Your task to perform on an android device: Add razer nari to the cart on bestbuy.com, then select checkout. Image 0: 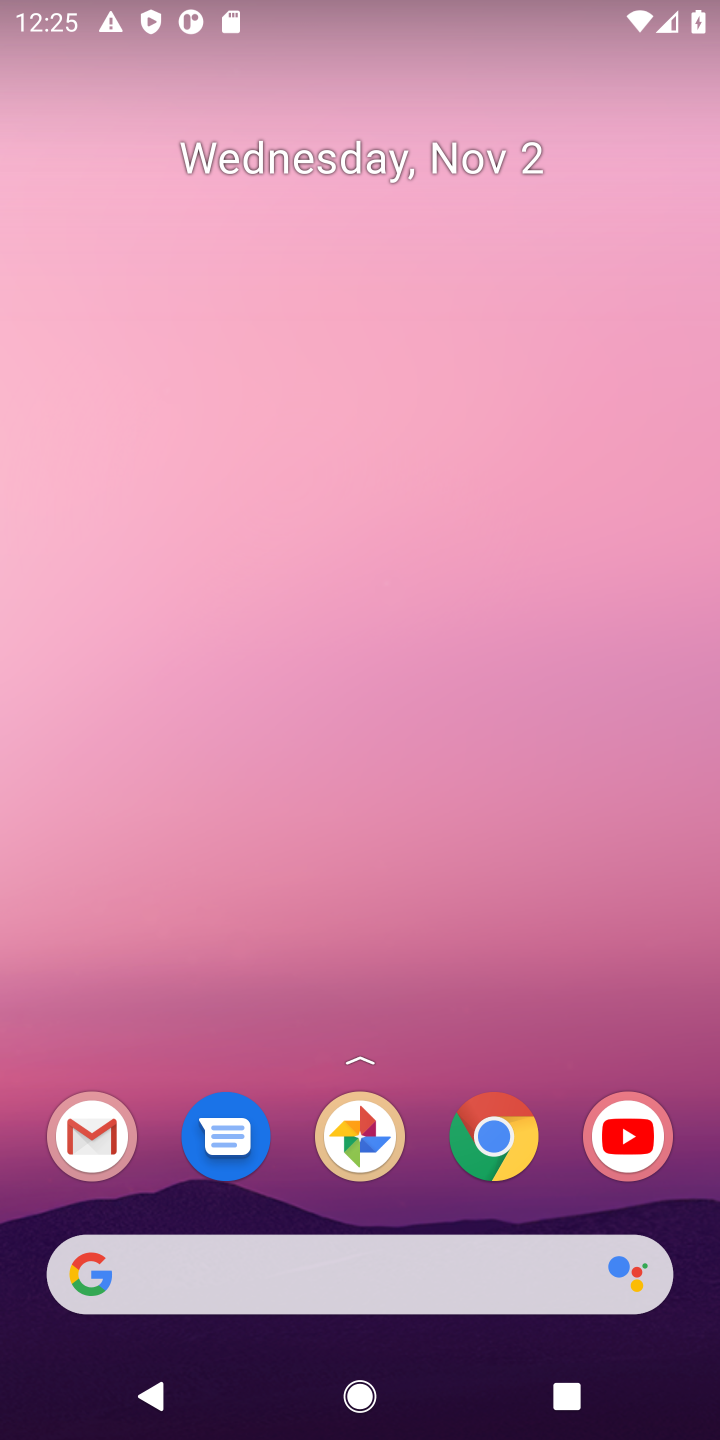
Step 0: click (482, 1145)
Your task to perform on an android device: Add razer nari to the cart on bestbuy.com, then select checkout. Image 1: 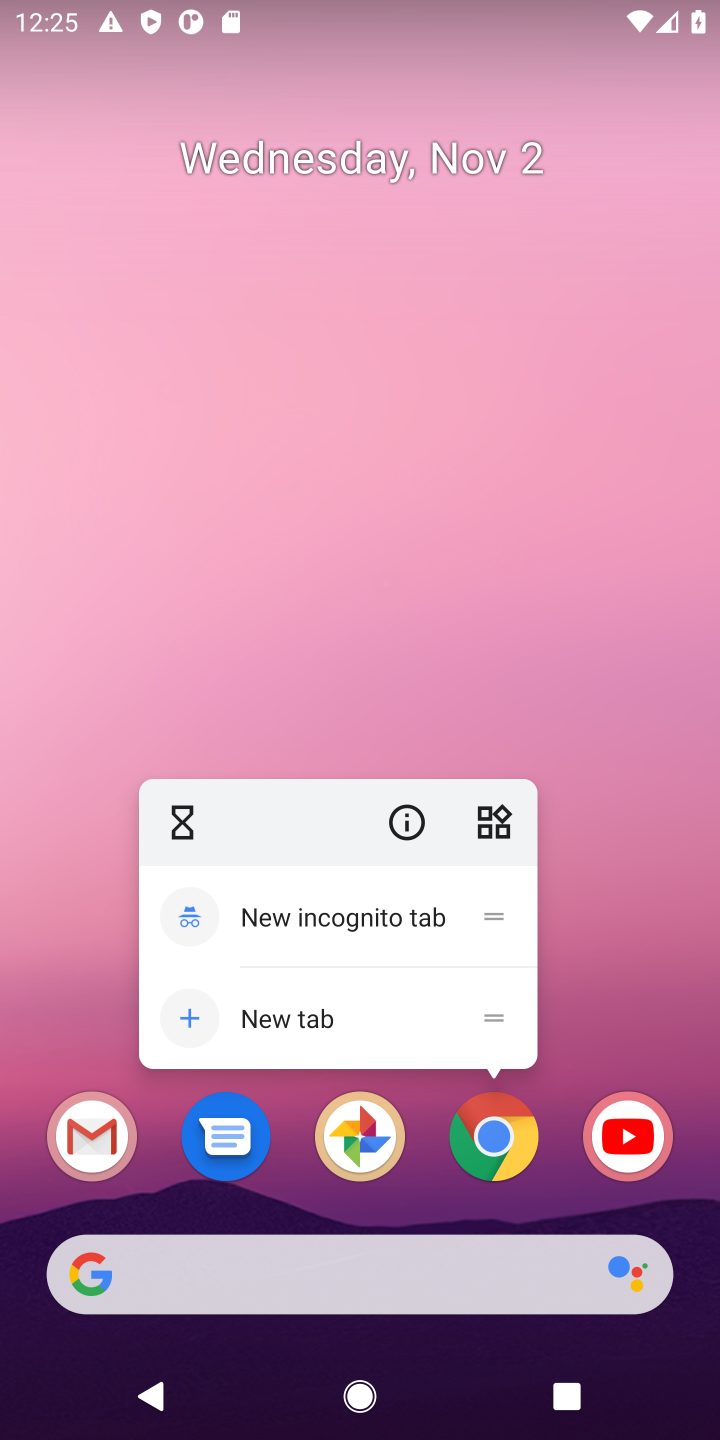
Step 1: click (493, 1146)
Your task to perform on an android device: Add razer nari to the cart on bestbuy.com, then select checkout. Image 2: 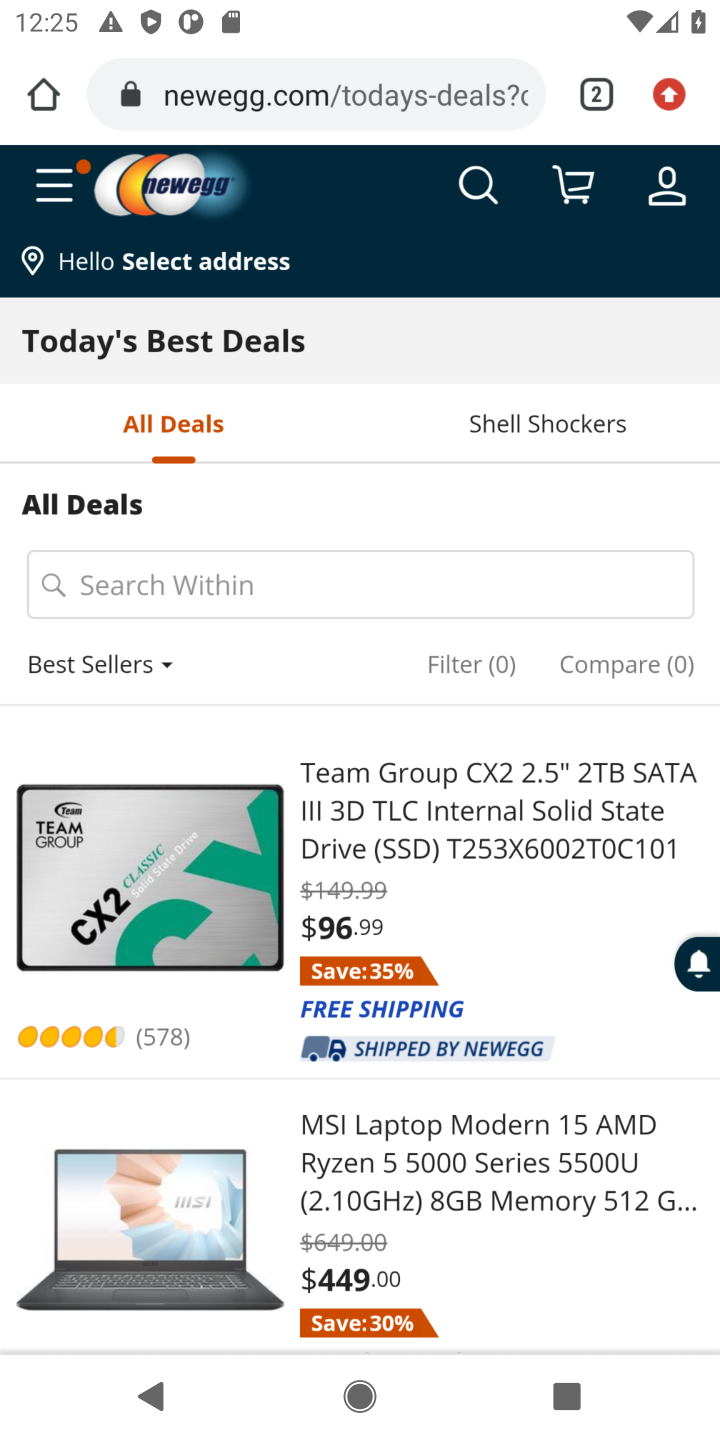
Step 2: click (483, 1174)
Your task to perform on an android device: Add razer nari to the cart on bestbuy.com, then select checkout. Image 3: 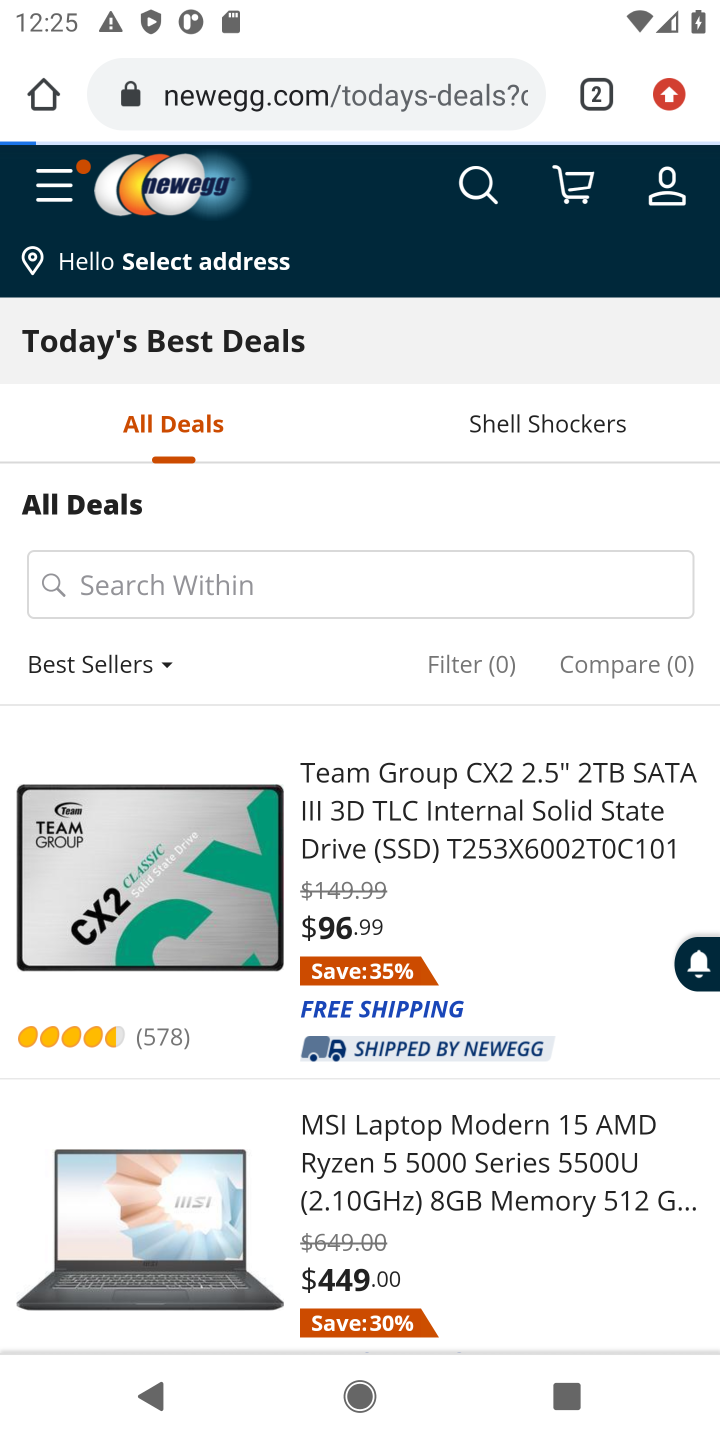
Step 3: click (407, 95)
Your task to perform on an android device: Add razer nari to the cart on bestbuy.com, then select checkout. Image 4: 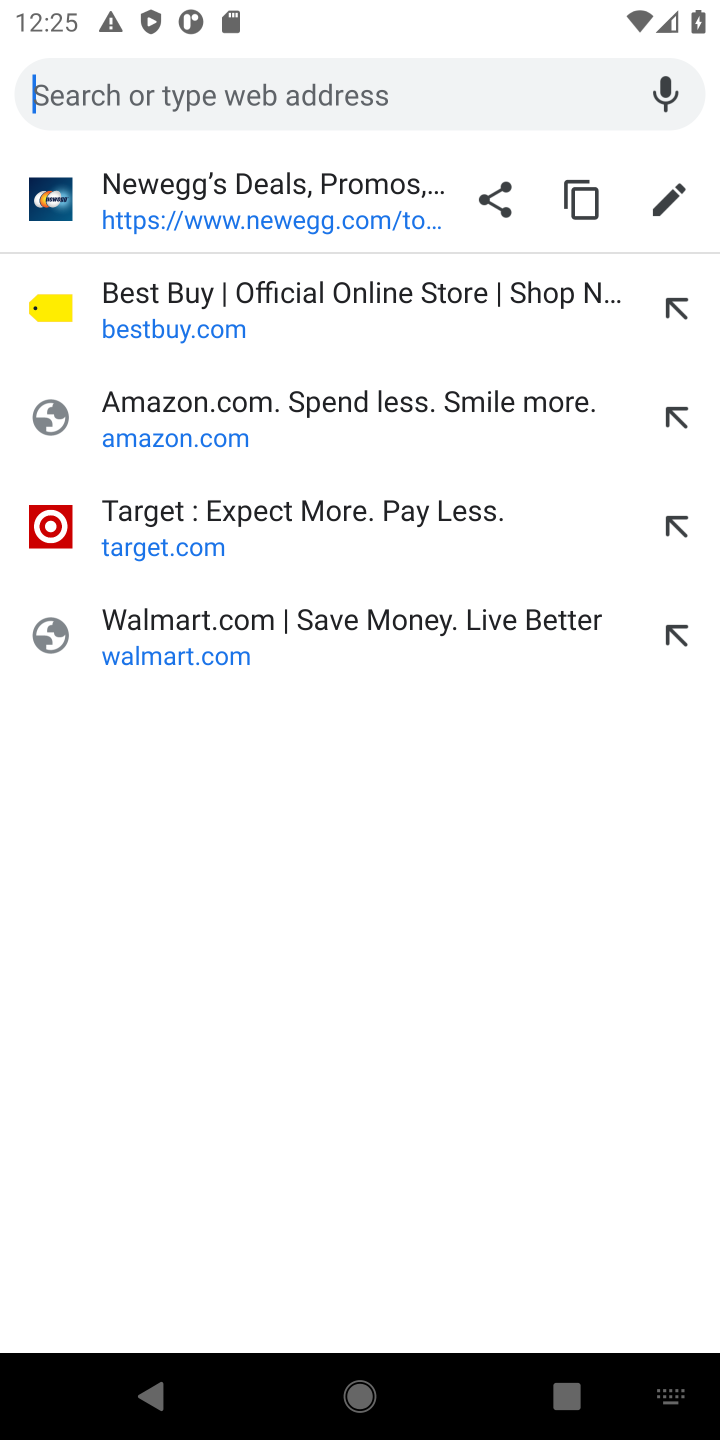
Step 4: type "bestbuy.com"
Your task to perform on an android device: Add razer nari to the cart on bestbuy.com, then select checkout. Image 5: 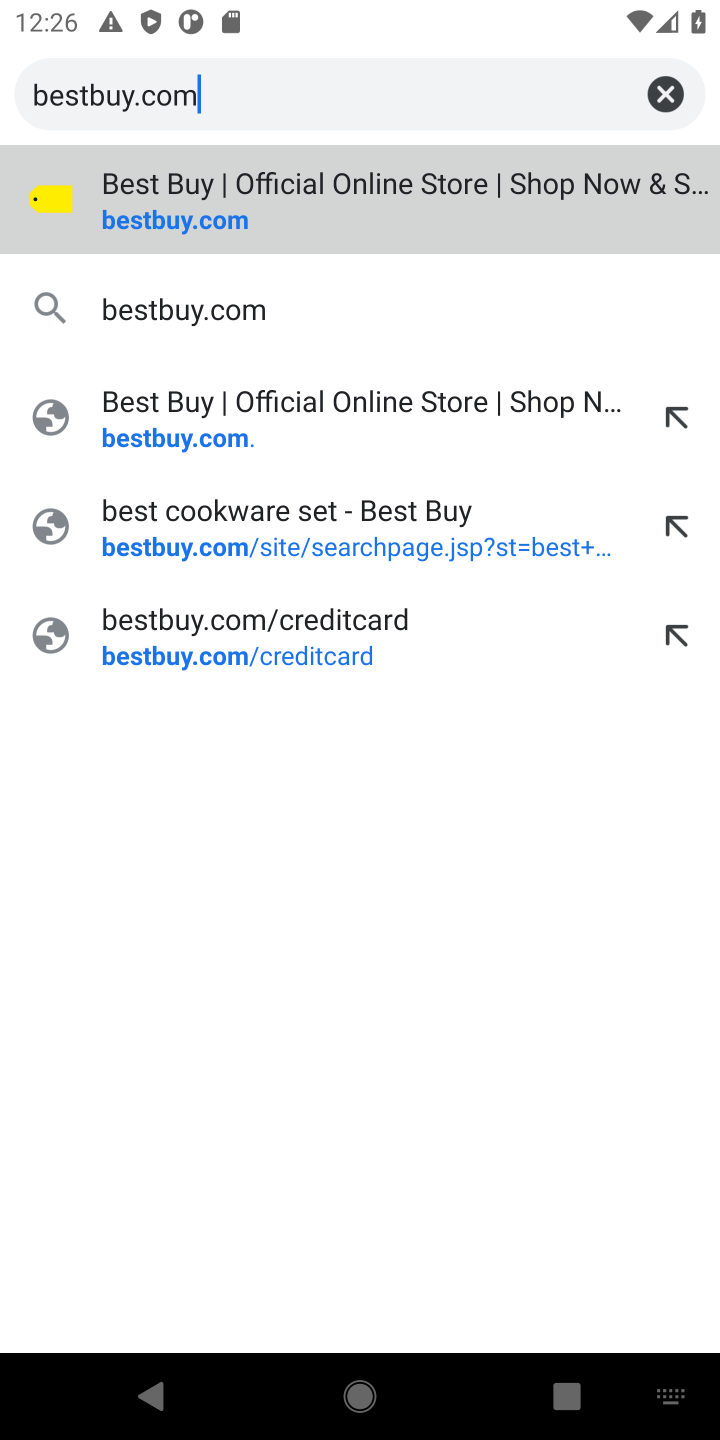
Step 5: click (468, 191)
Your task to perform on an android device: Add razer nari to the cart on bestbuy.com, then select checkout. Image 6: 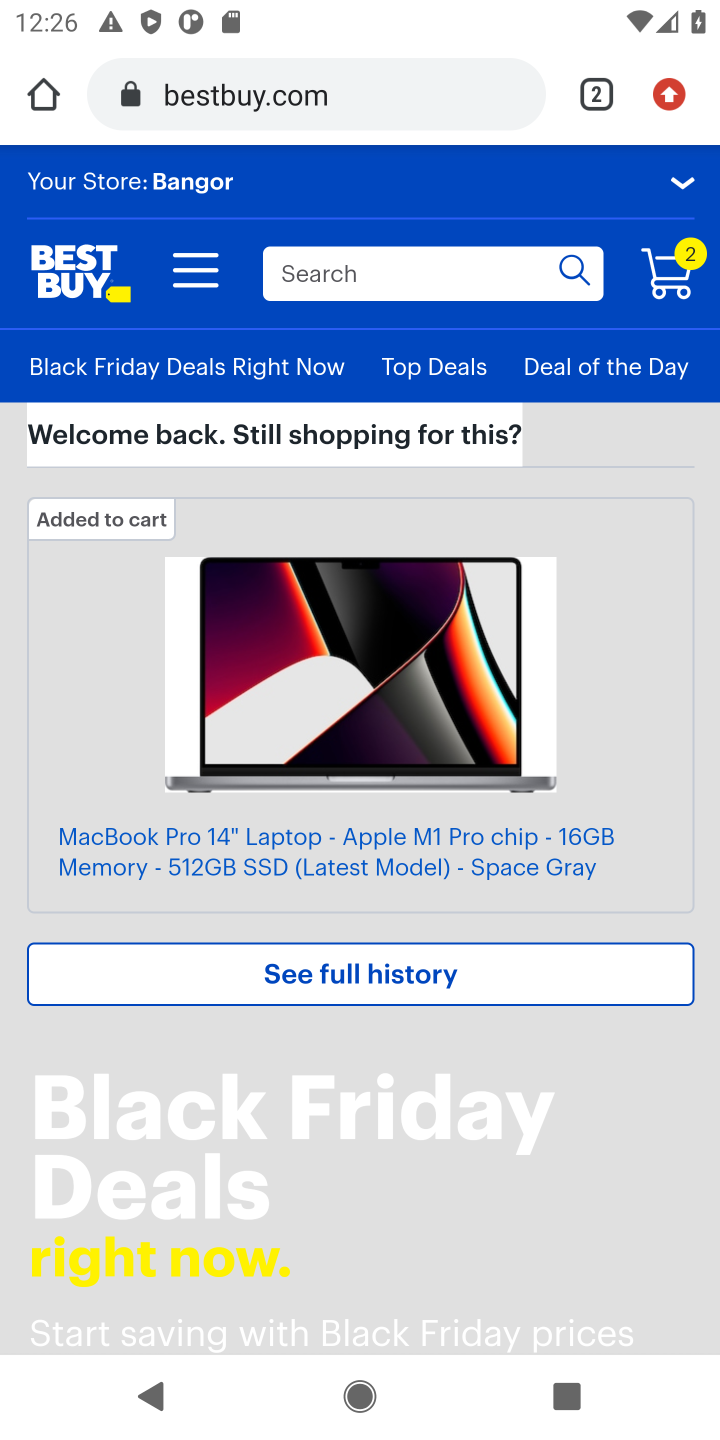
Step 6: click (390, 284)
Your task to perform on an android device: Add razer nari to the cart on bestbuy.com, then select checkout. Image 7: 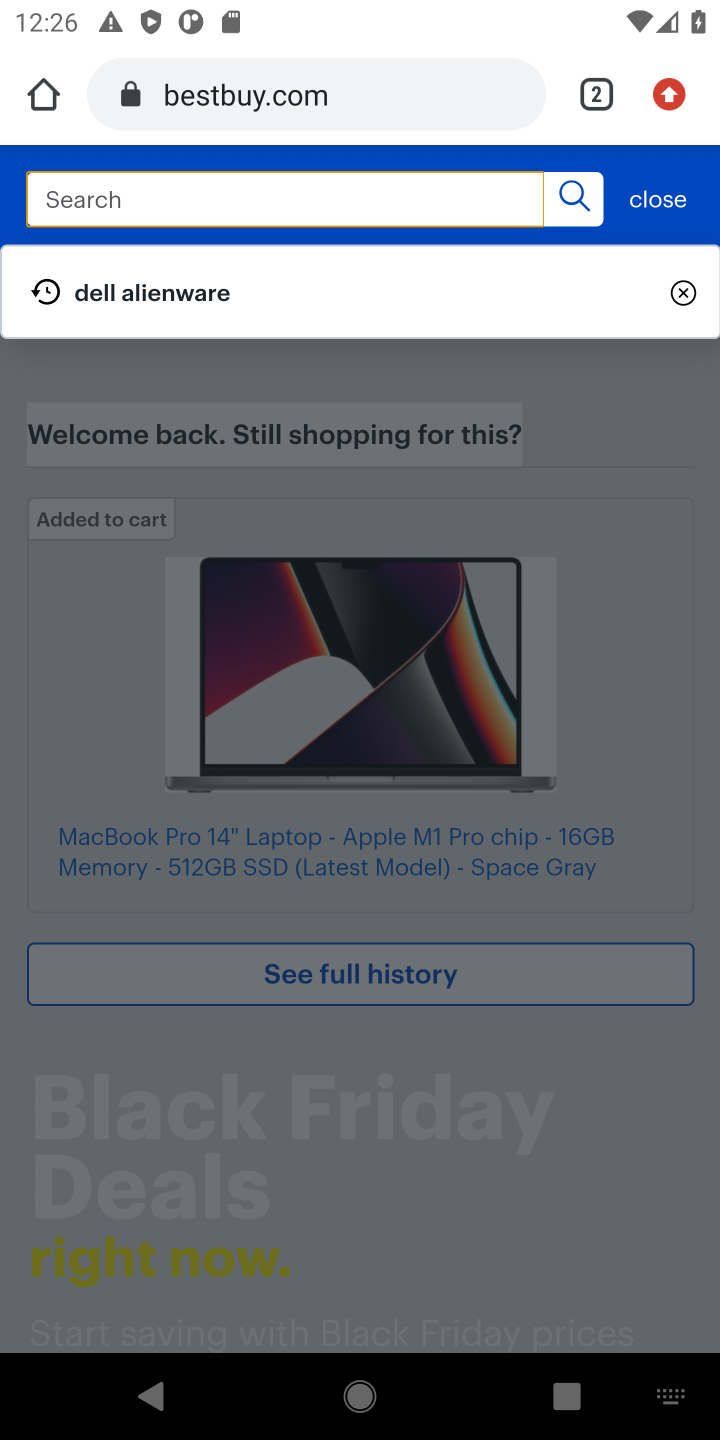
Step 7: type "razer nari"
Your task to perform on an android device: Add razer nari to the cart on bestbuy.com, then select checkout. Image 8: 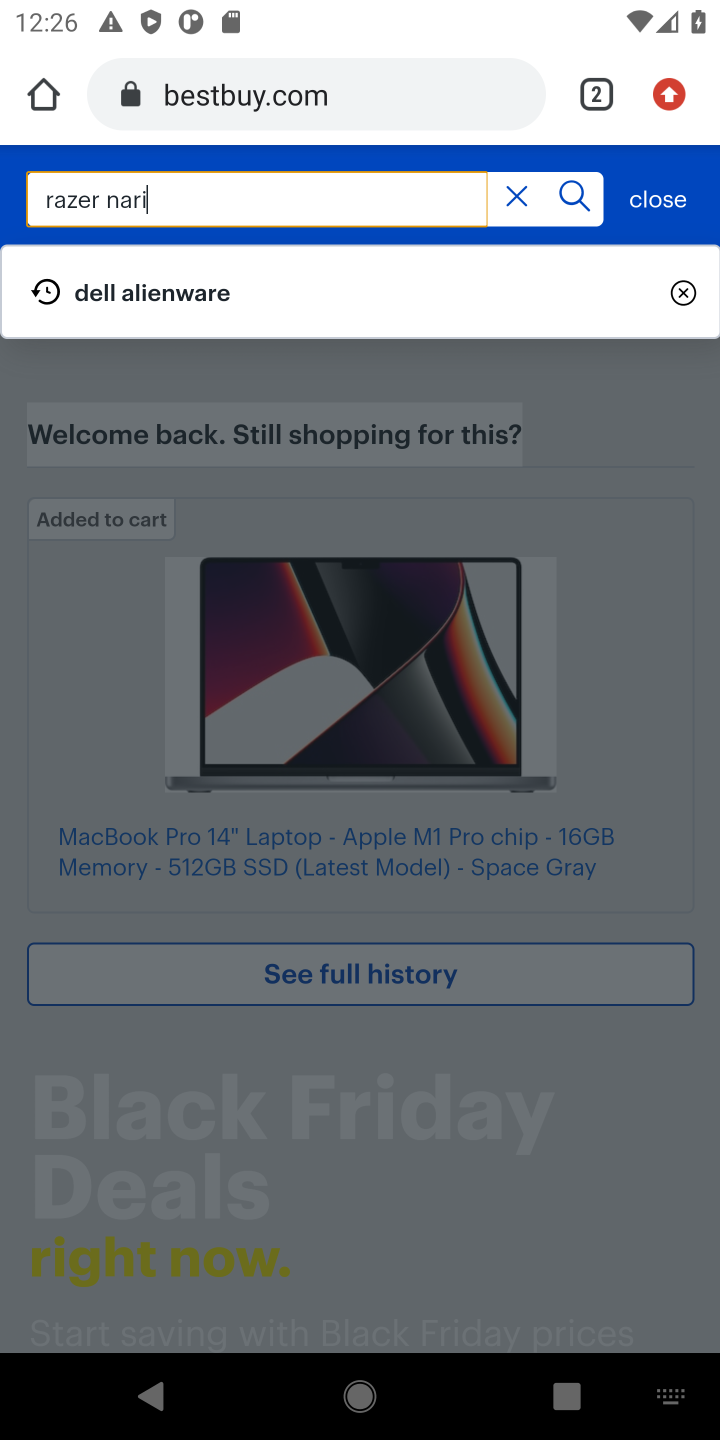
Step 8: type ""
Your task to perform on an android device: Add razer nari to the cart on bestbuy.com, then select checkout. Image 9: 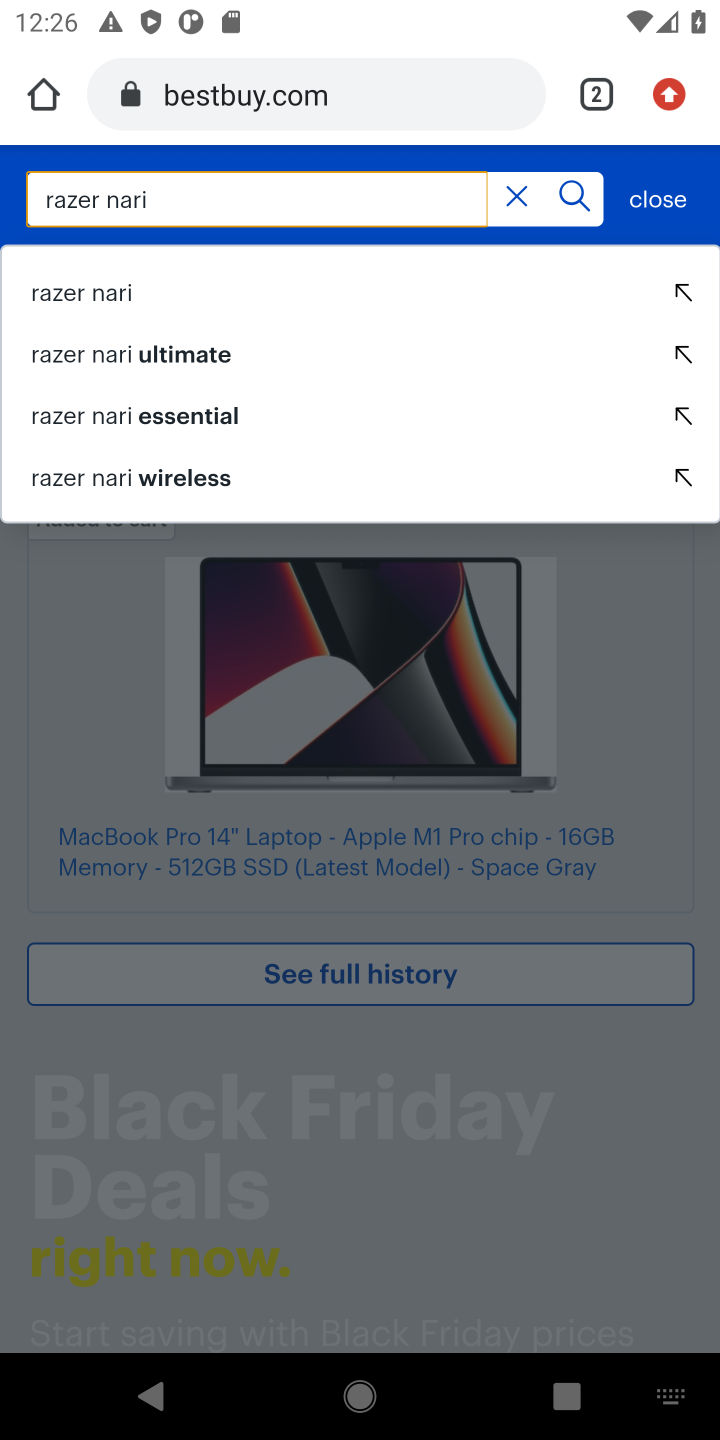
Step 9: click (148, 278)
Your task to perform on an android device: Add razer nari to the cart on bestbuy.com, then select checkout. Image 10: 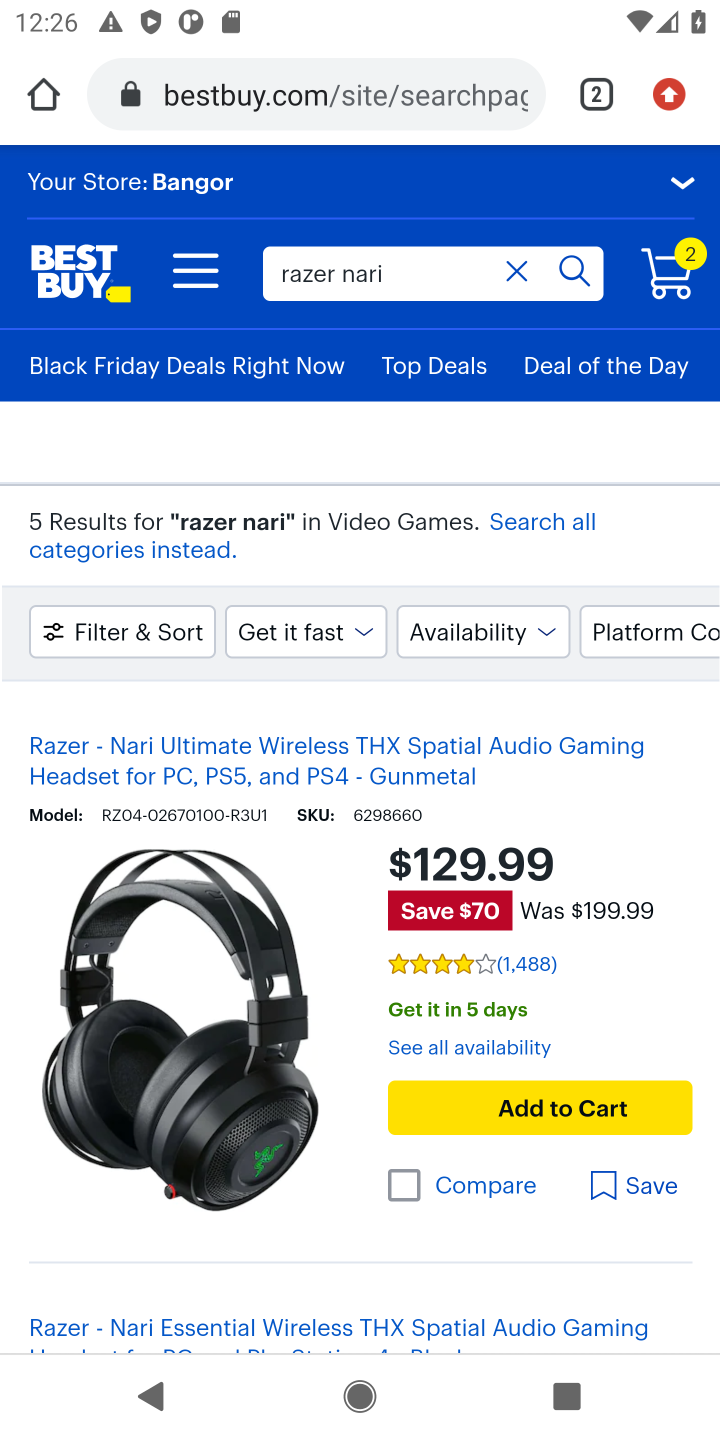
Step 10: click (546, 1097)
Your task to perform on an android device: Add razer nari to the cart on bestbuy.com, then select checkout. Image 11: 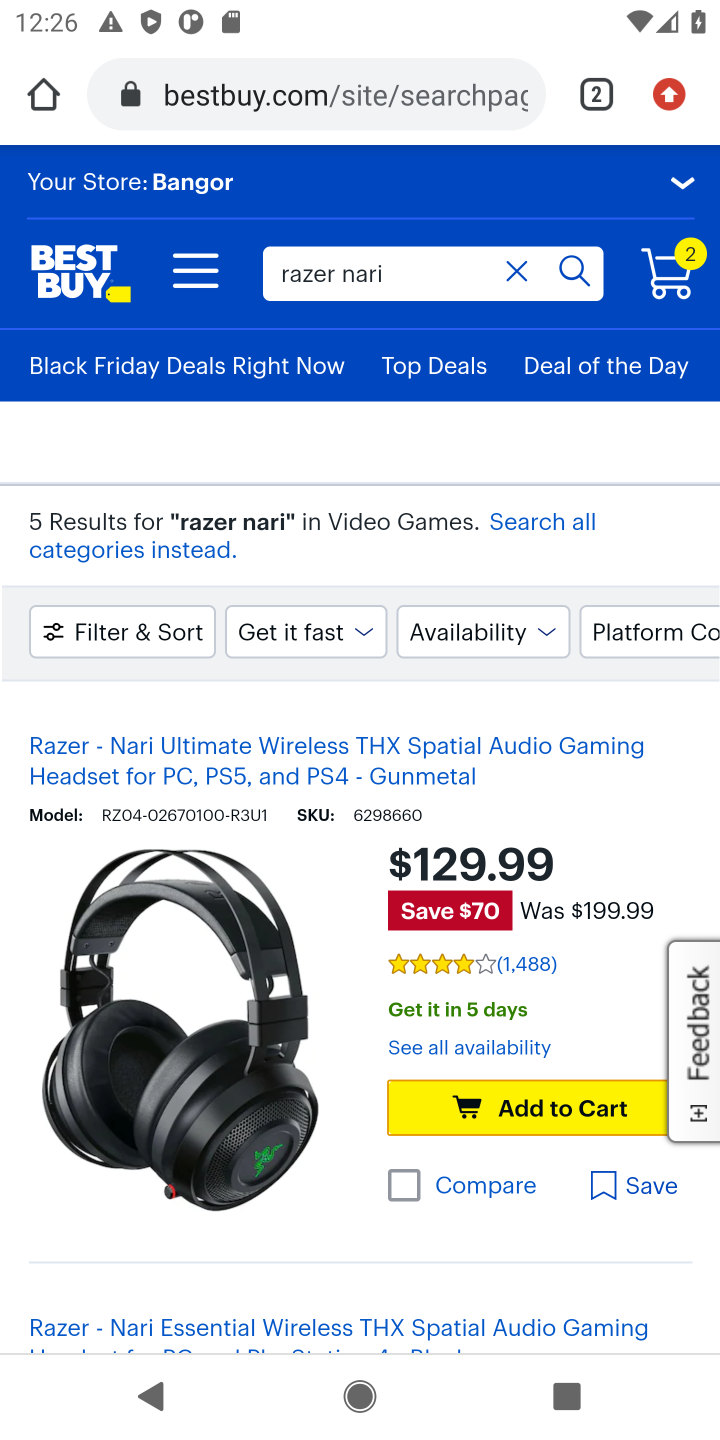
Step 11: click (550, 1119)
Your task to perform on an android device: Add razer nari to the cart on bestbuy.com, then select checkout. Image 12: 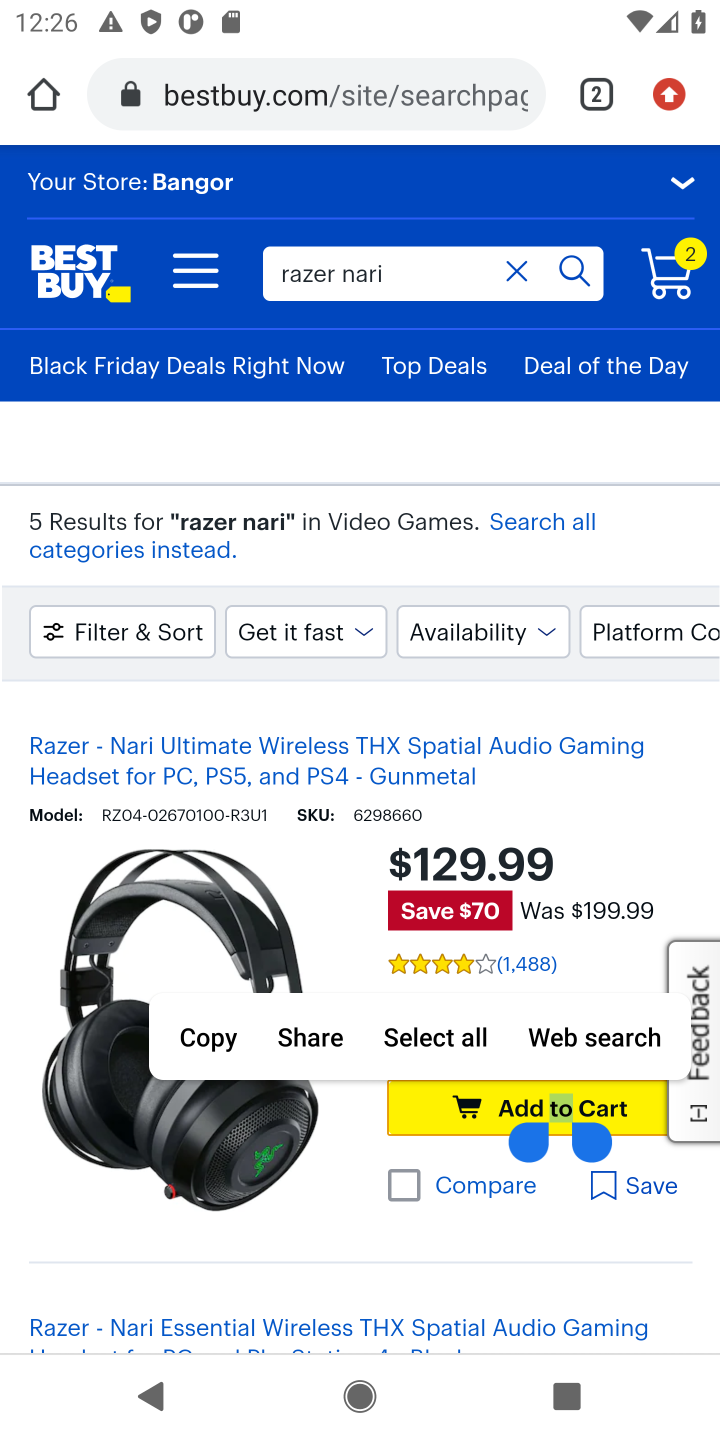
Step 12: click (490, 1119)
Your task to perform on an android device: Add razer nari to the cart on bestbuy.com, then select checkout. Image 13: 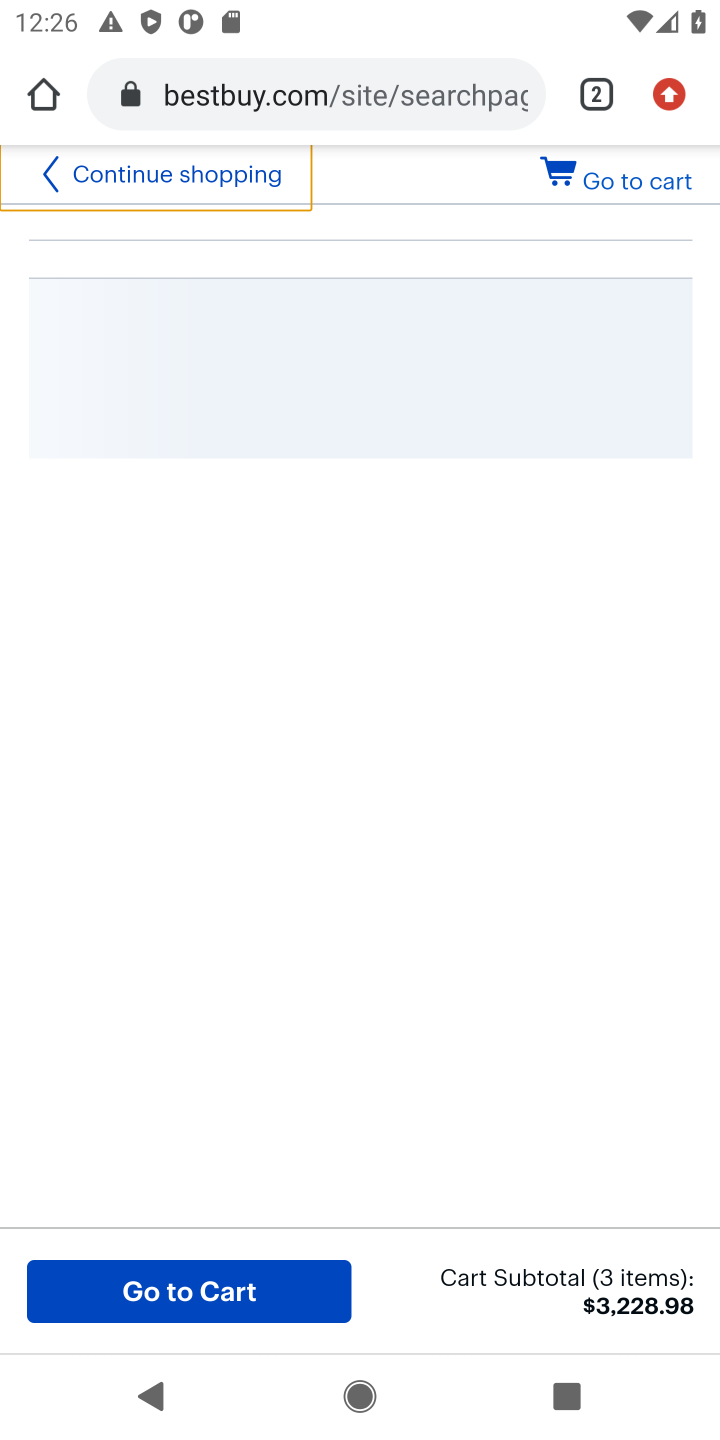
Step 13: click (630, 191)
Your task to perform on an android device: Add razer nari to the cart on bestbuy.com, then select checkout. Image 14: 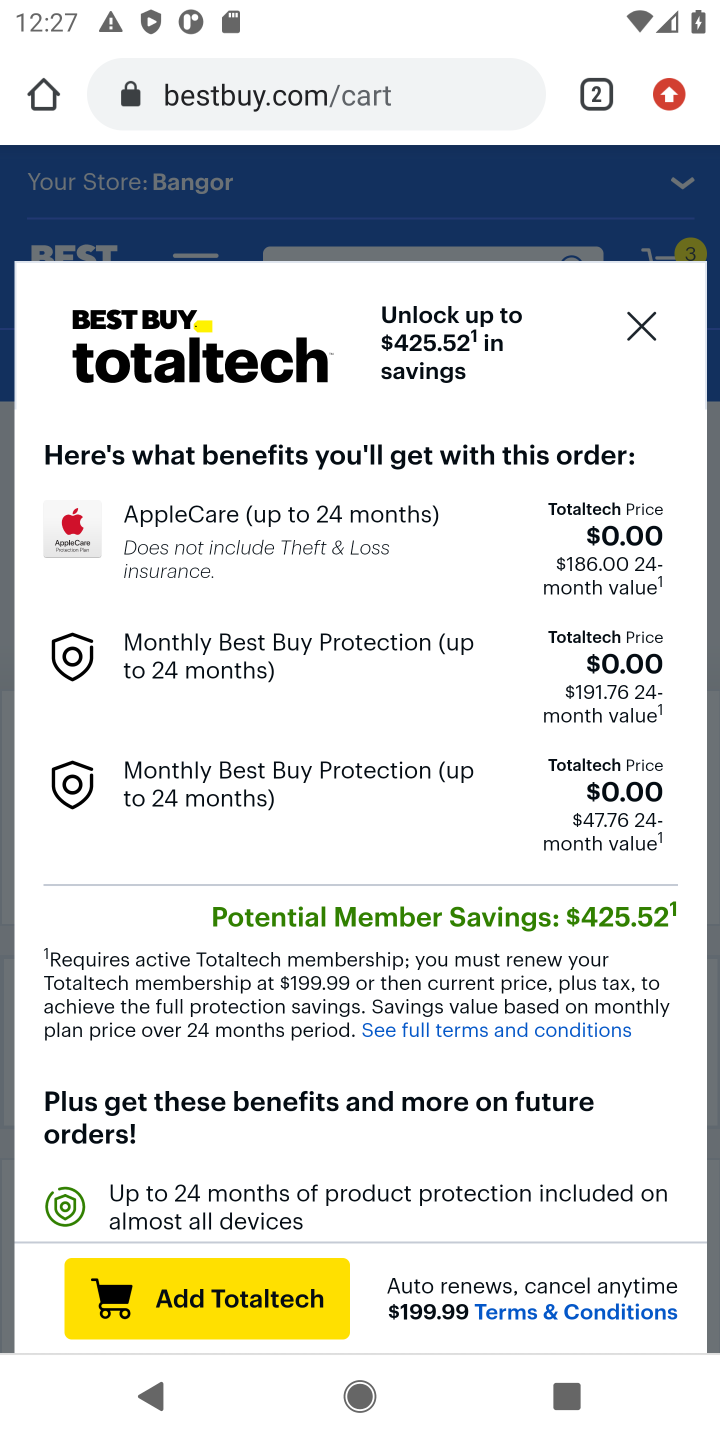
Step 14: click (654, 343)
Your task to perform on an android device: Add razer nari to the cart on bestbuy.com, then select checkout. Image 15: 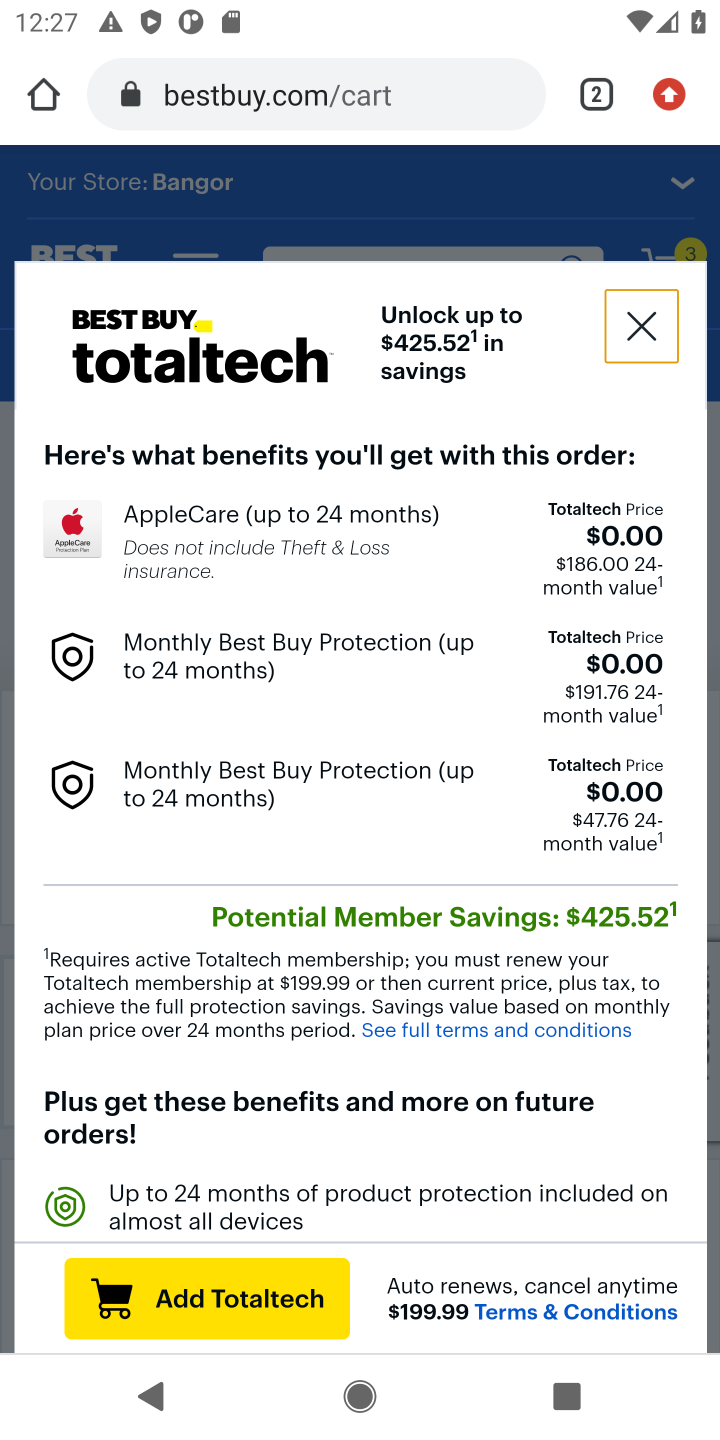
Step 15: click (648, 337)
Your task to perform on an android device: Add razer nari to the cart on bestbuy.com, then select checkout. Image 16: 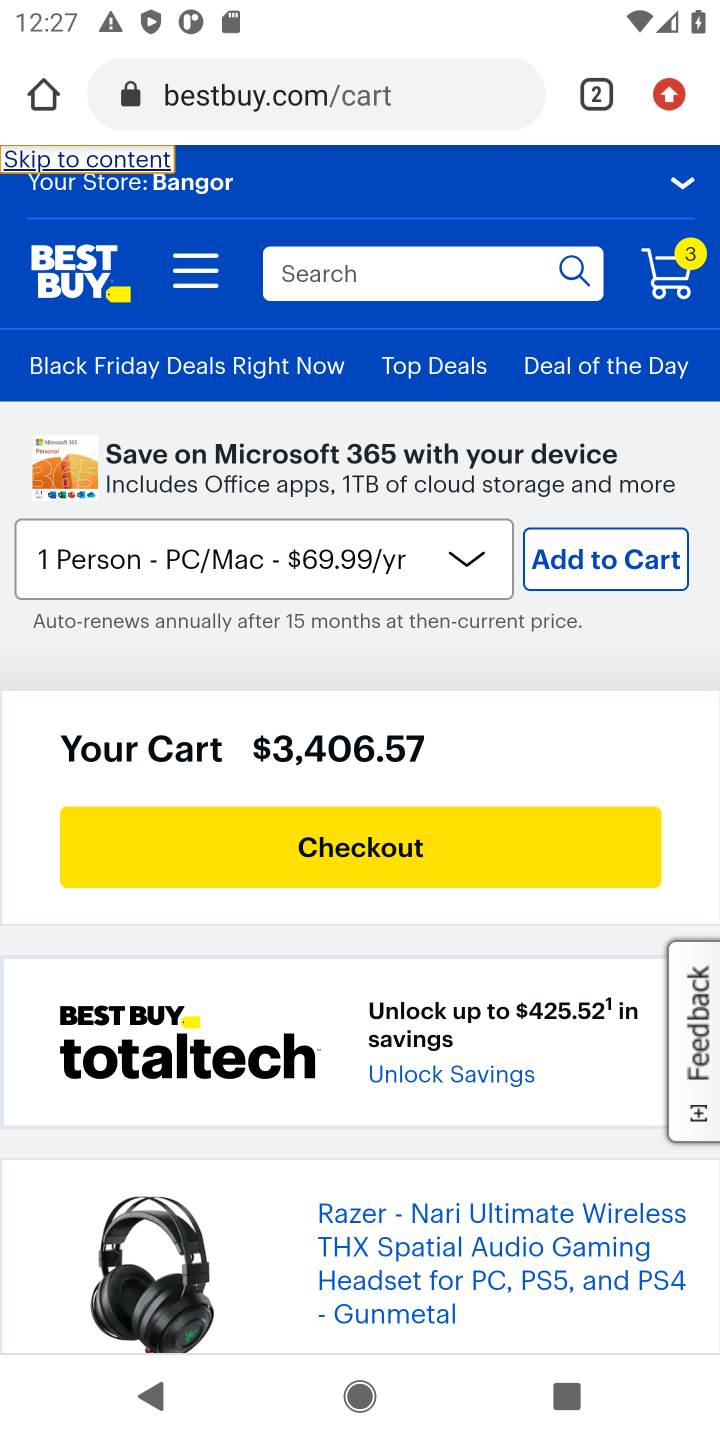
Step 16: click (703, 269)
Your task to perform on an android device: Add razer nari to the cart on bestbuy.com, then select checkout. Image 17: 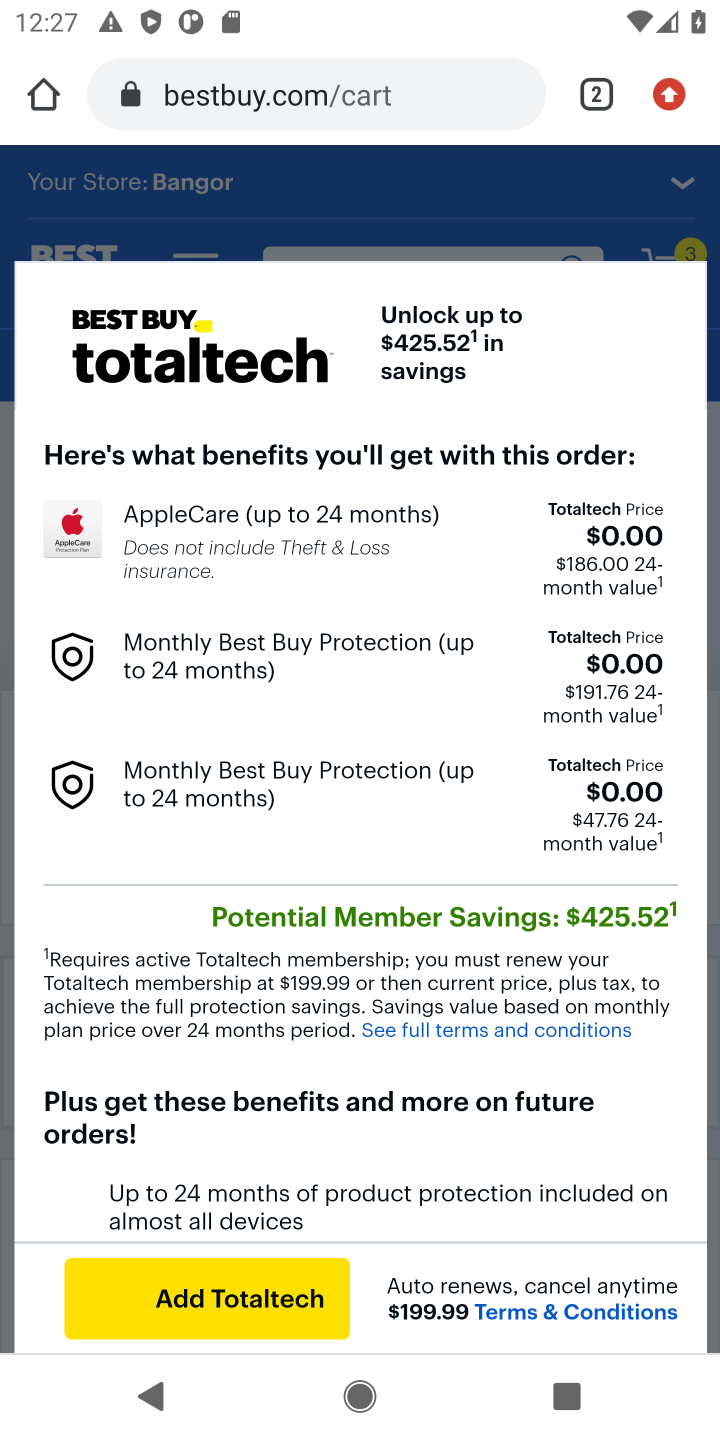
Step 17: drag from (425, 1139) to (510, 562)
Your task to perform on an android device: Add razer nari to the cart on bestbuy.com, then select checkout. Image 18: 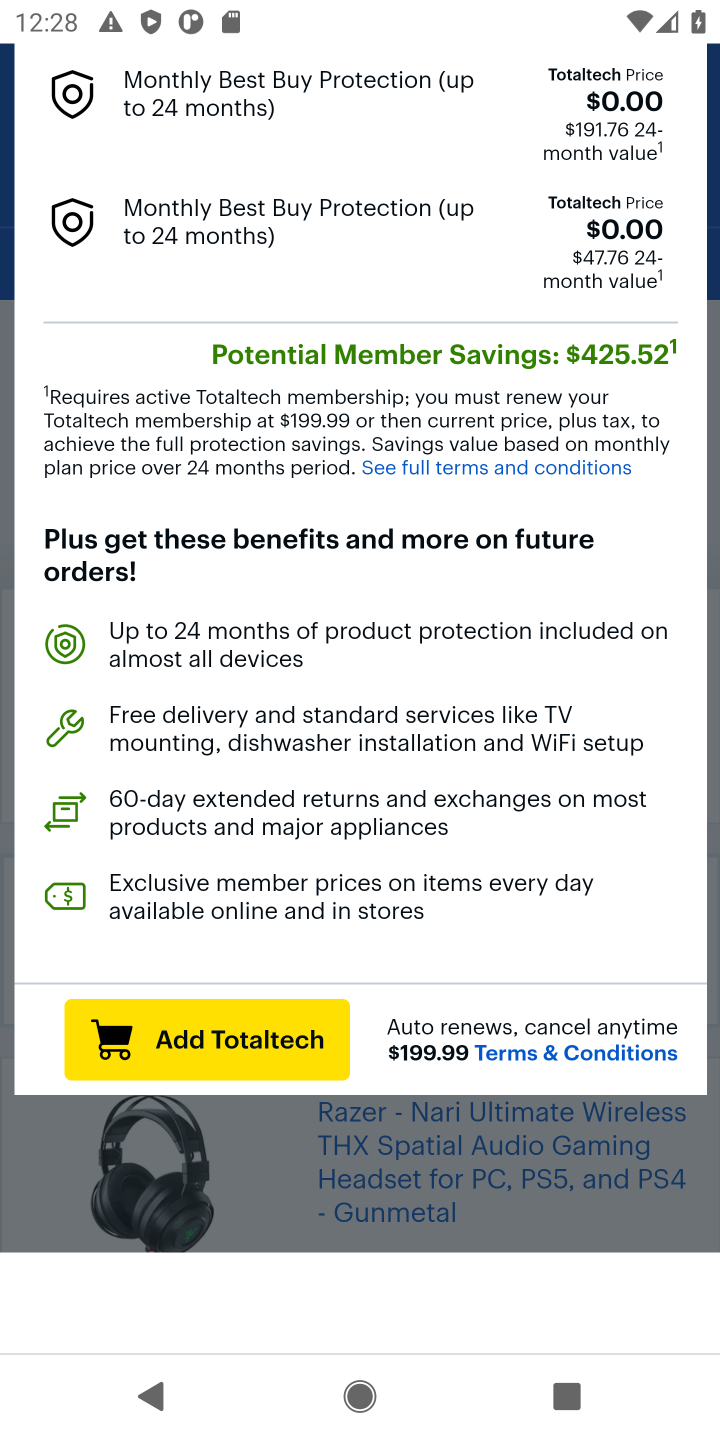
Step 18: drag from (638, 174) to (555, 788)
Your task to perform on an android device: Add razer nari to the cart on bestbuy.com, then select checkout. Image 19: 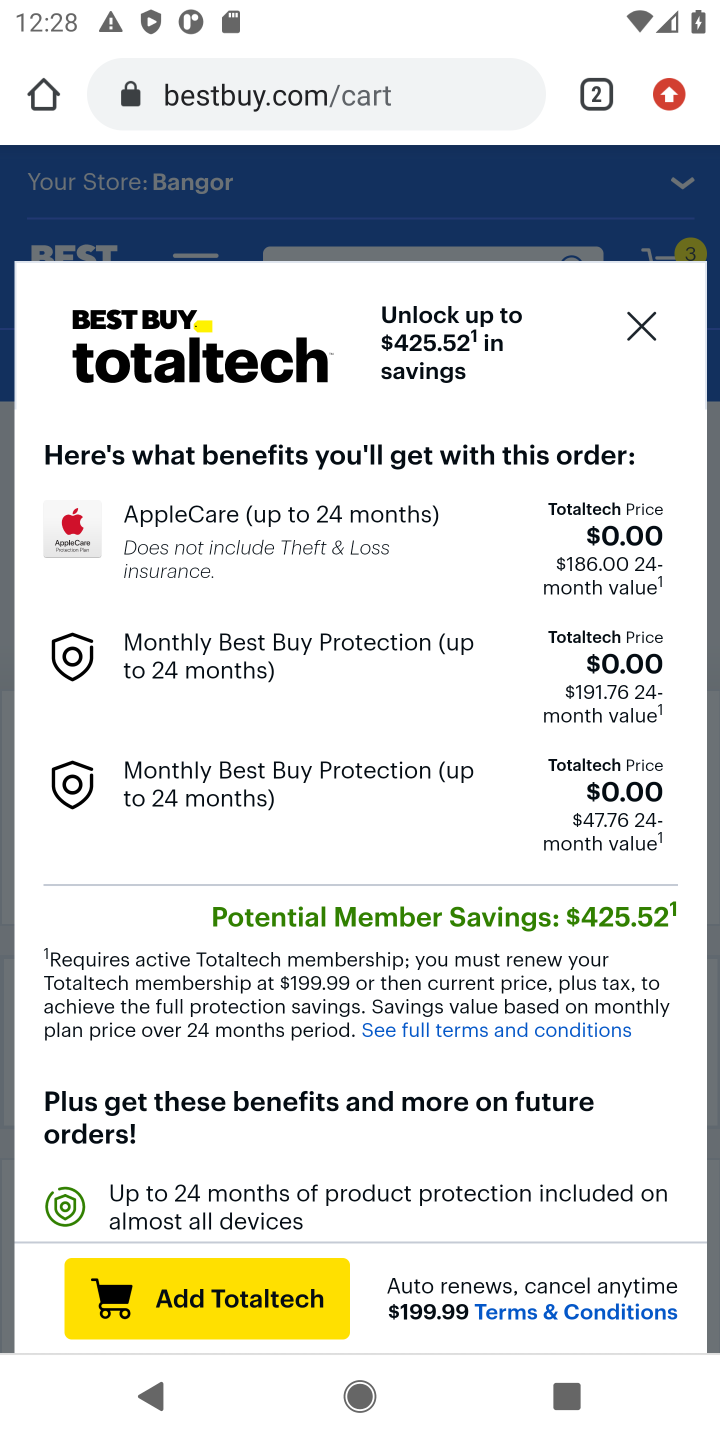
Step 19: click (623, 332)
Your task to perform on an android device: Add razer nari to the cart on bestbuy.com, then select checkout. Image 20: 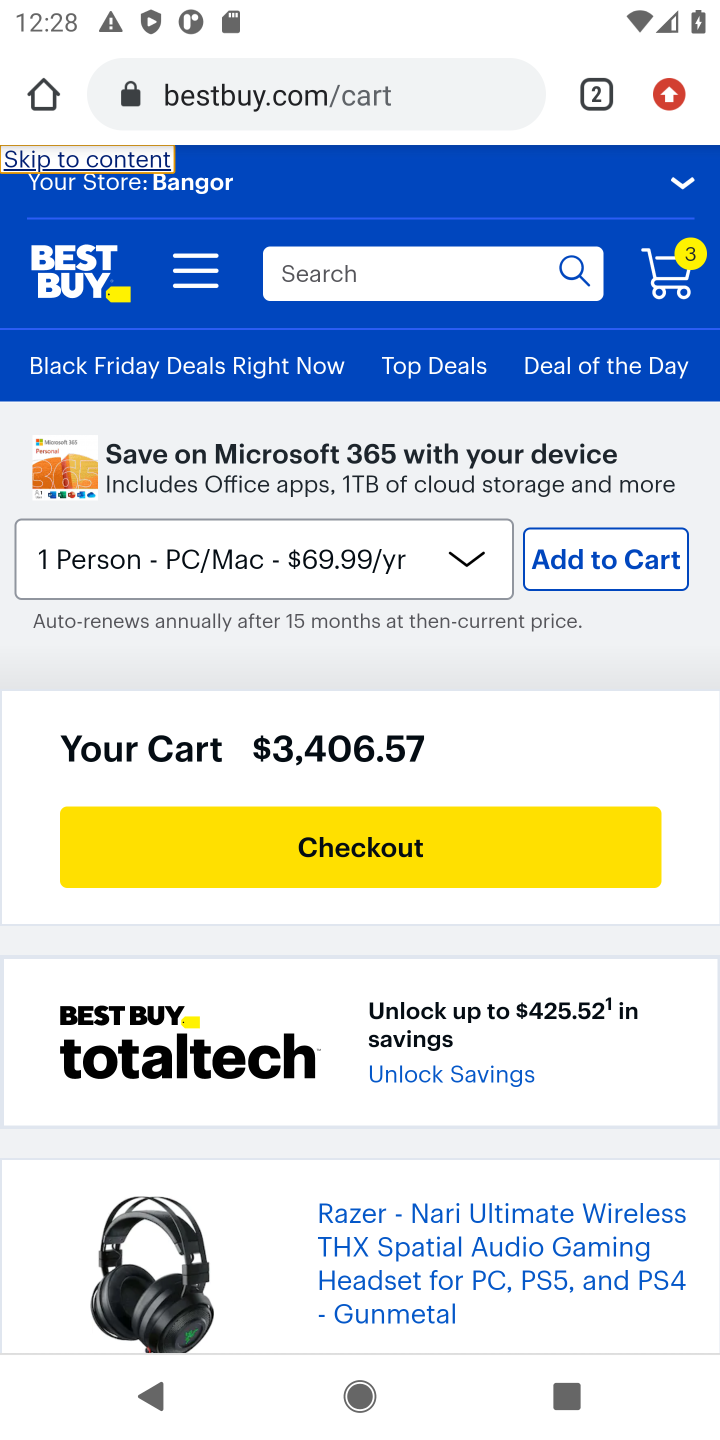
Step 20: task complete